Your task to perform on an android device: Open Google Maps Image 0: 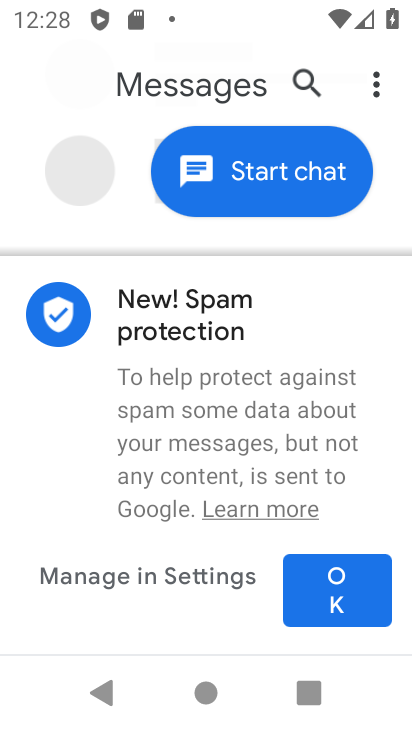
Step 0: press home button
Your task to perform on an android device: Open Google Maps Image 1: 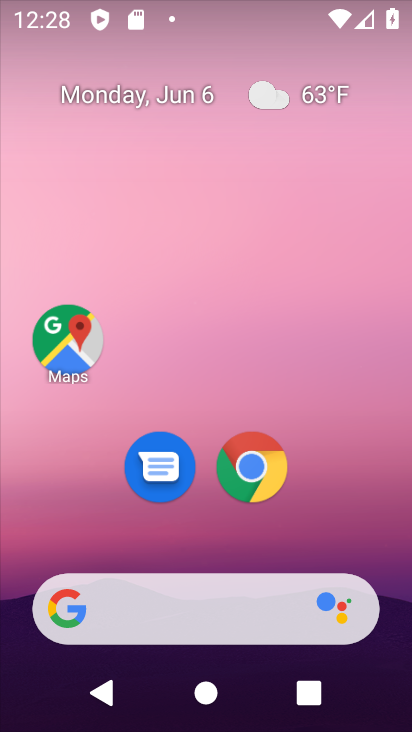
Step 1: drag from (396, 644) to (278, 86)
Your task to perform on an android device: Open Google Maps Image 2: 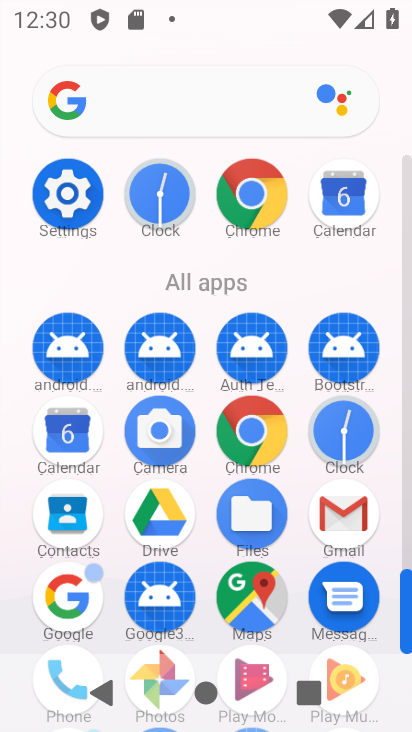
Step 2: click (244, 597)
Your task to perform on an android device: Open Google Maps Image 3: 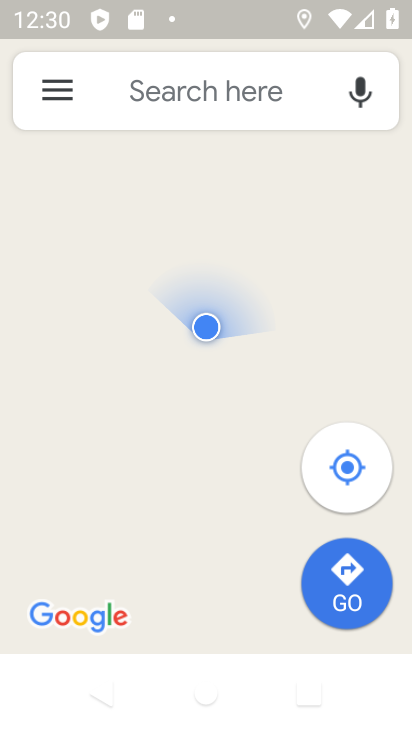
Step 3: task complete